Your task to perform on an android device: Open wifi settings Image 0: 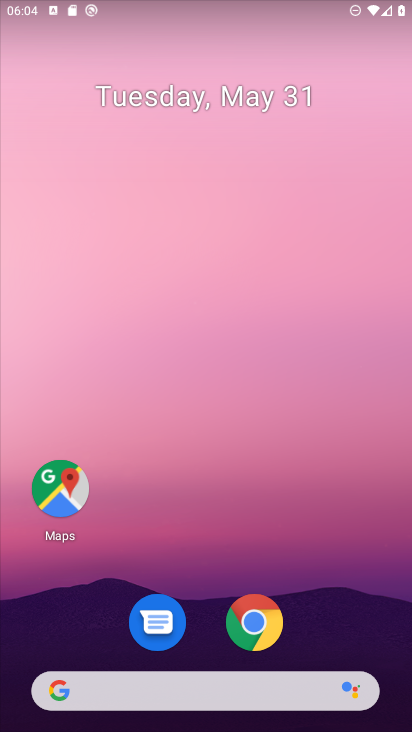
Step 0: drag from (208, 664) to (321, 1)
Your task to perform on an android device: Open wifi settings Image 1: 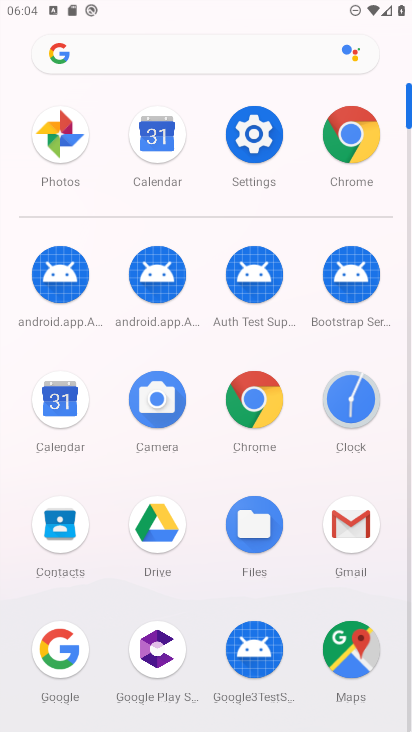
Step 1: click (268, 122)
Your task to perform on an android device: Open wifi settings Image 2: 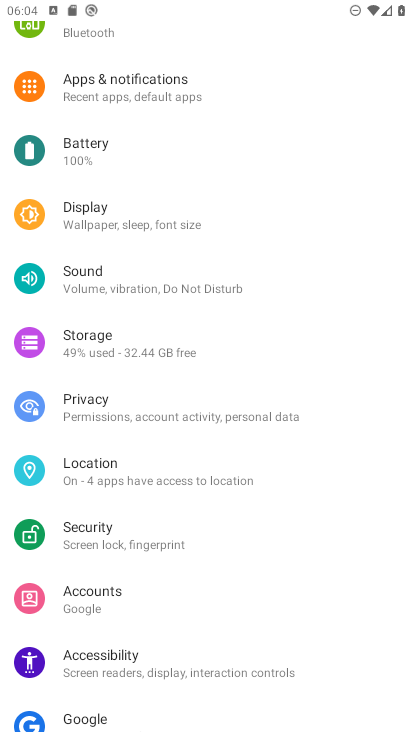
Step 2: drag from (267, 195) to (223, 730)
Your task to perform on an android device: Open wifi settings Image 3: 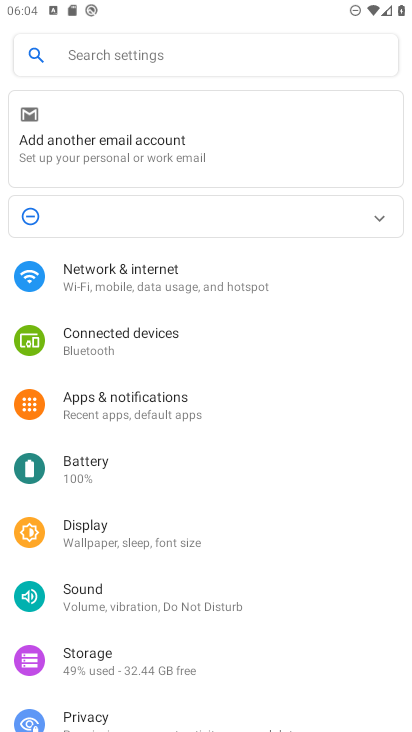
Step 3: click (211, 289)
Your task to perform on an android device: Open wifi settings Image 4: 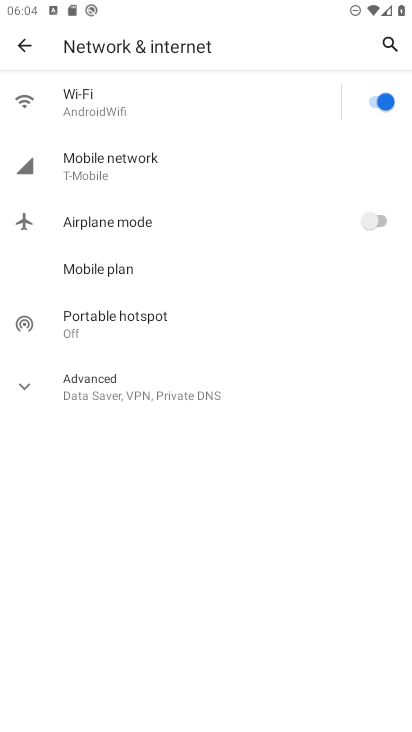
Step 4: click (97, 107)
Your task to perform on an android device: Open wifi settings Image 5: 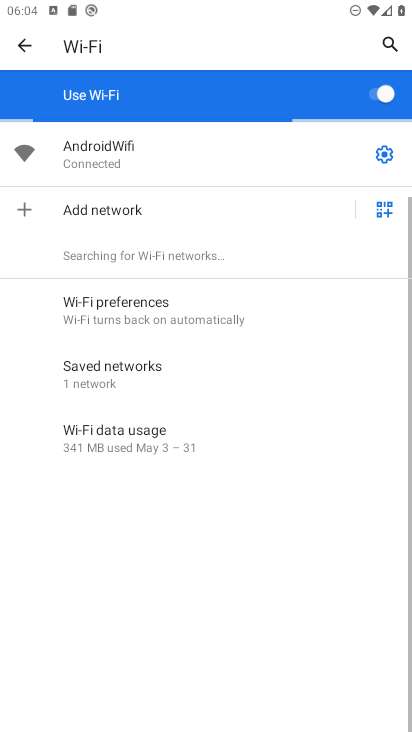
Step 5: task complete